Your task to perform on an android device: install app "Google Find My Device" Image 0: 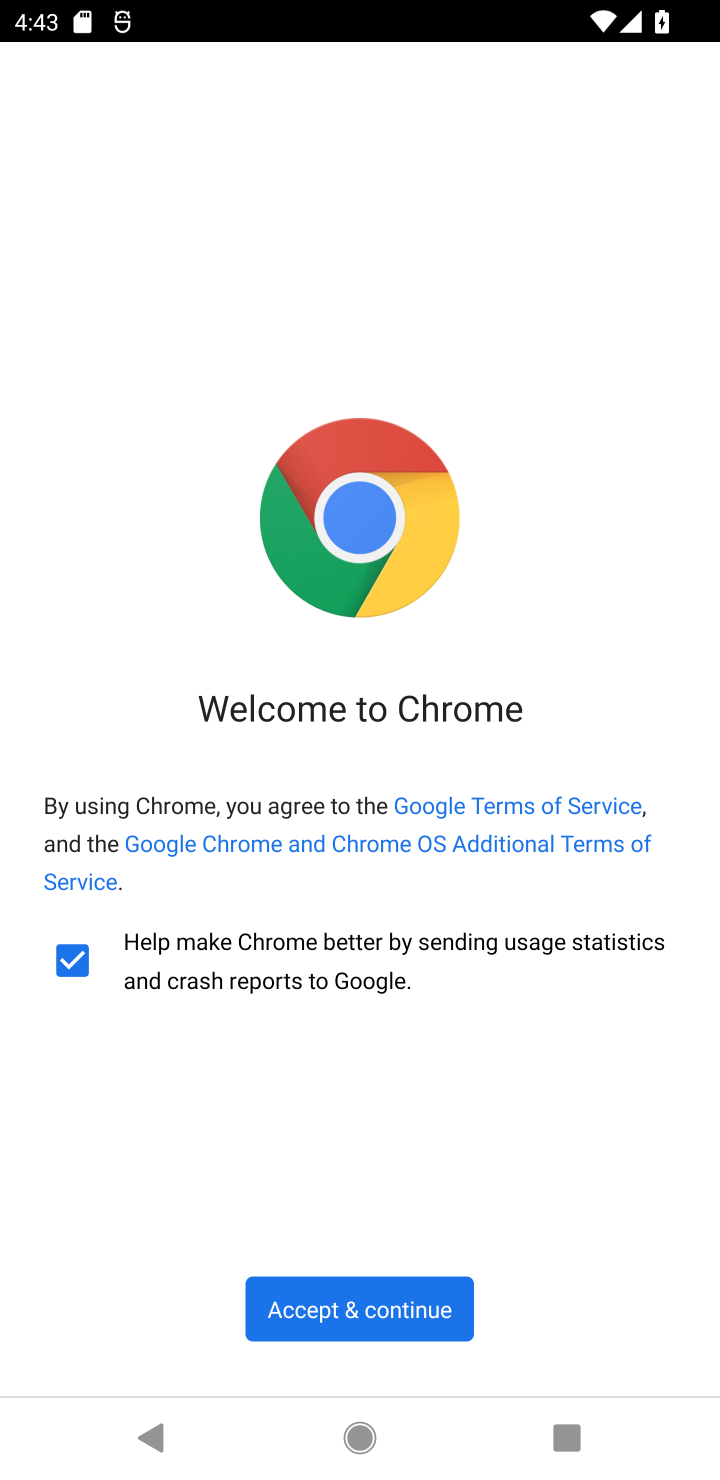
Step 0: press home button
Your task to perform on an android device: install app "Google Find My Device" Image 1: 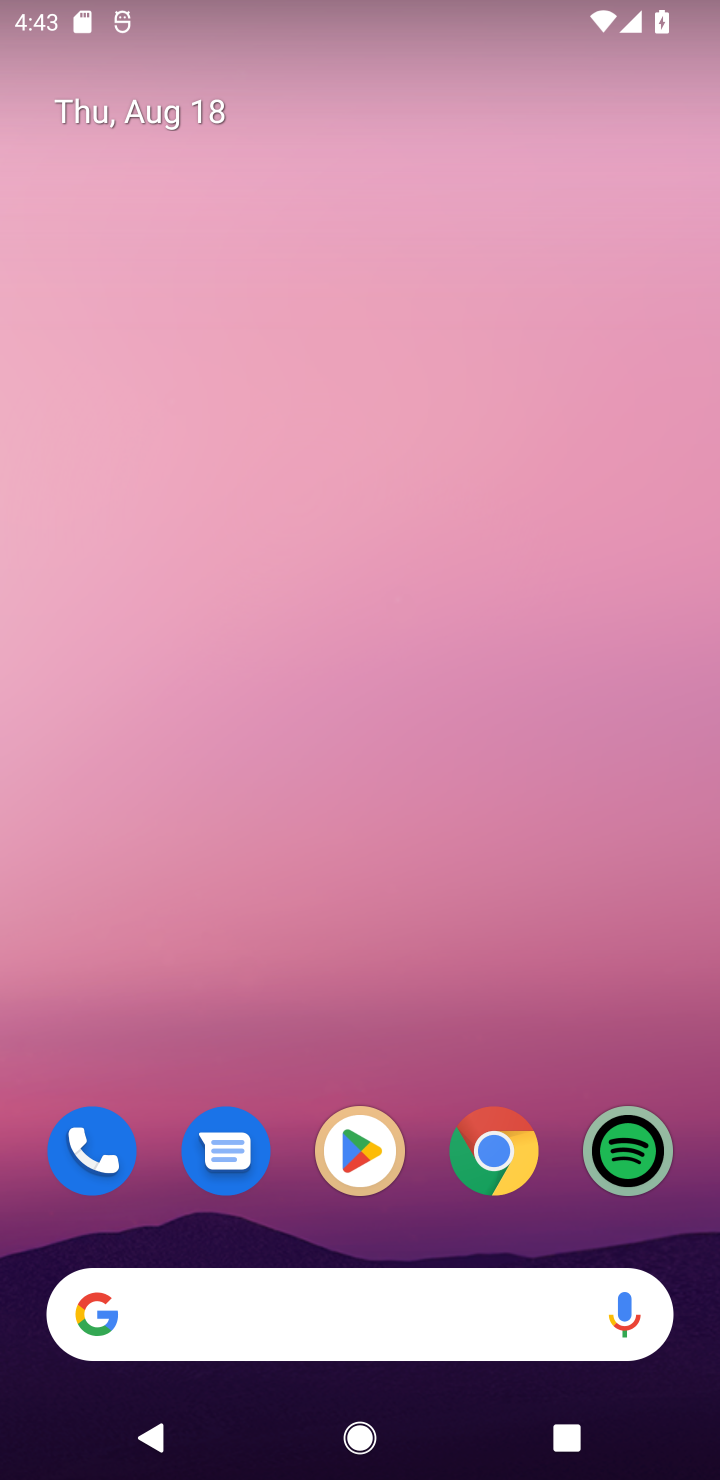
Step 1: click (361, 1152)
Your task to perform on an android device: install app "Google Find My Device" Image 2: 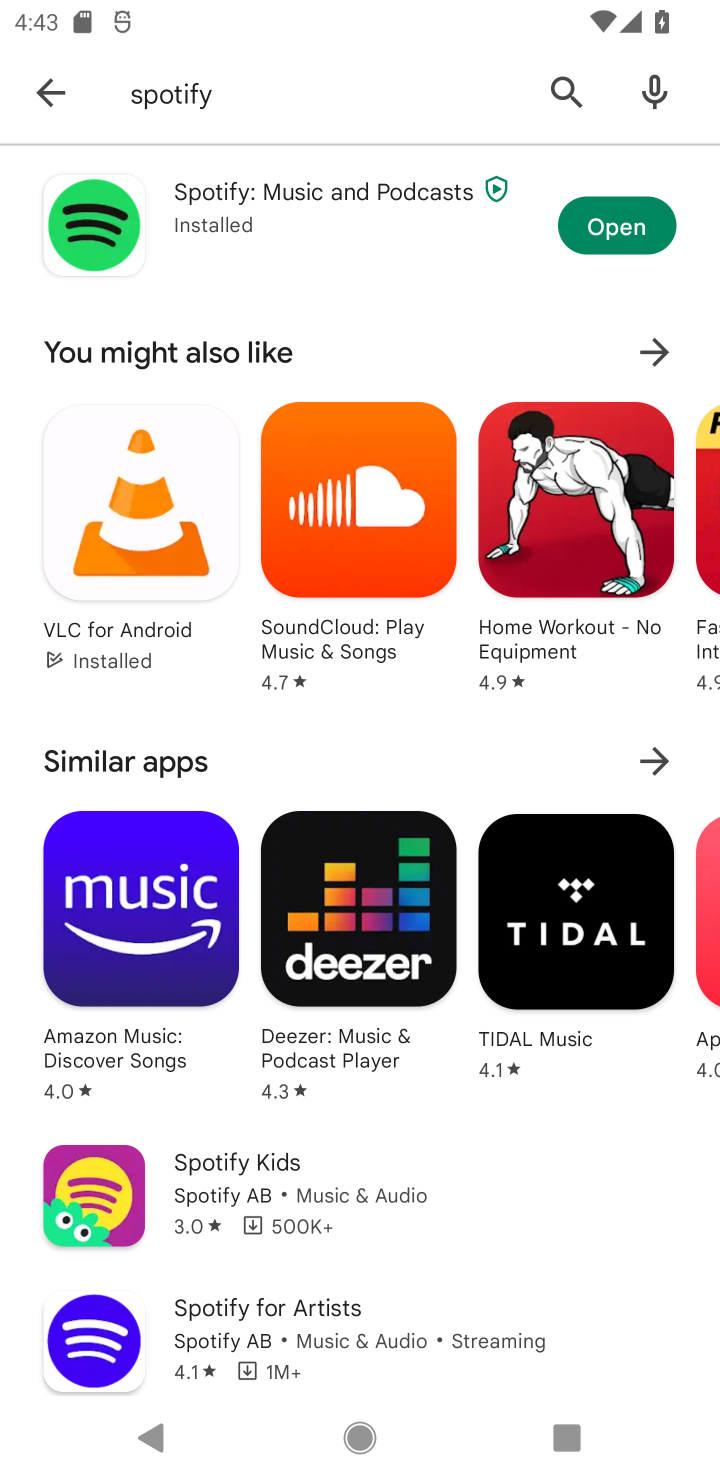
Step 2: click (577, 103)
Your task to perform on an android device: install app "Google Find My Device" Image 3: 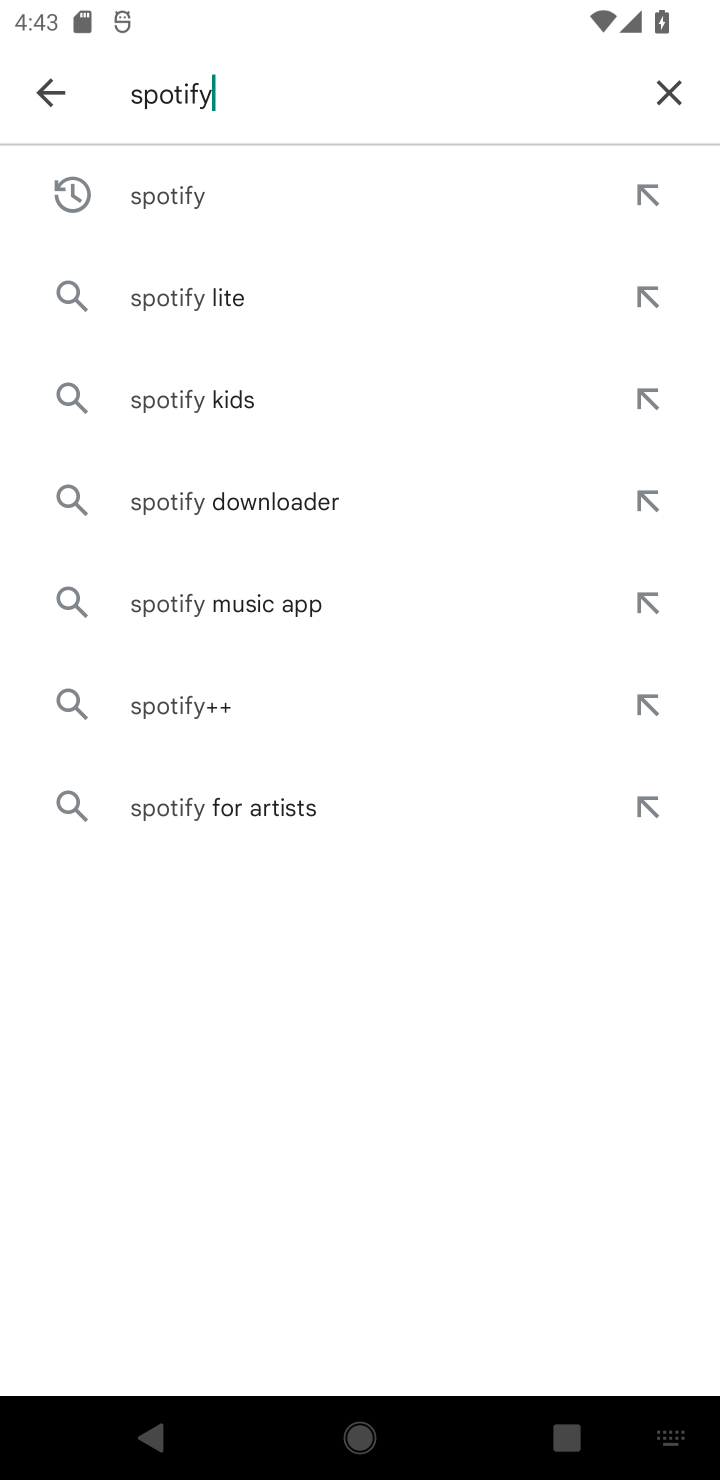
Step 3: click (657, 116)
Your task to perform on an android device: install app "Google Find My Device" Image 4: 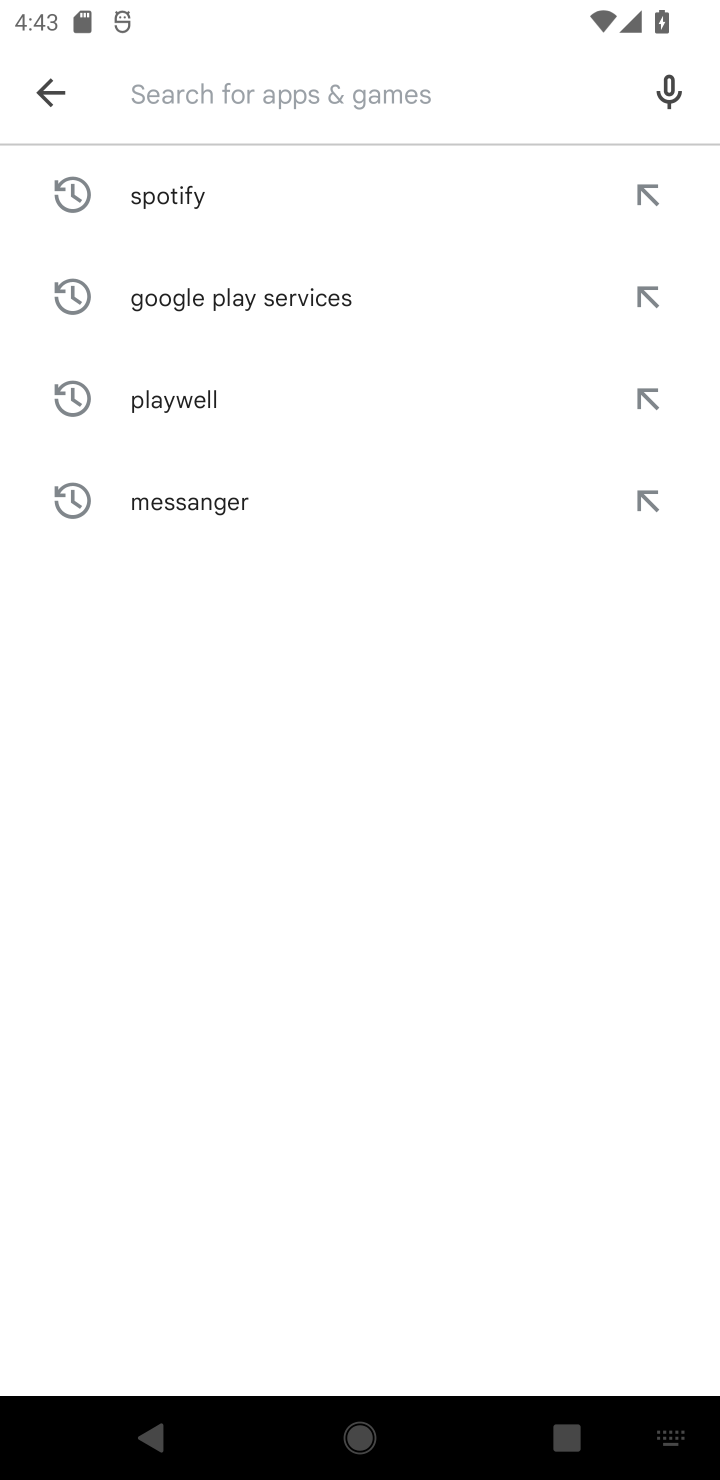
Step 4: type "google find my devies"
Your task to perform on an android device: install app "Google Find My Device" Image 5: 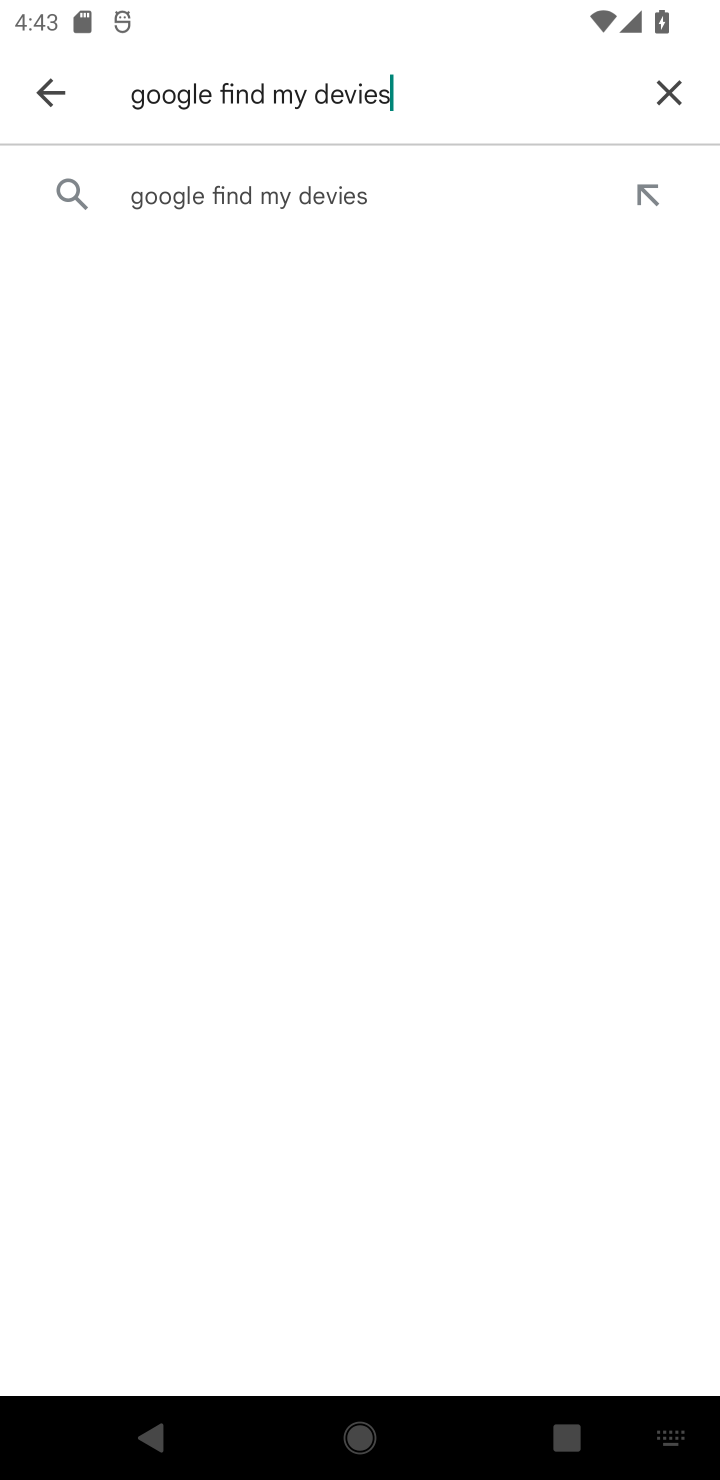
Step 5: click (145, 215)
Your task to perform on an android device: install app "Google Find My Device" Image 6: 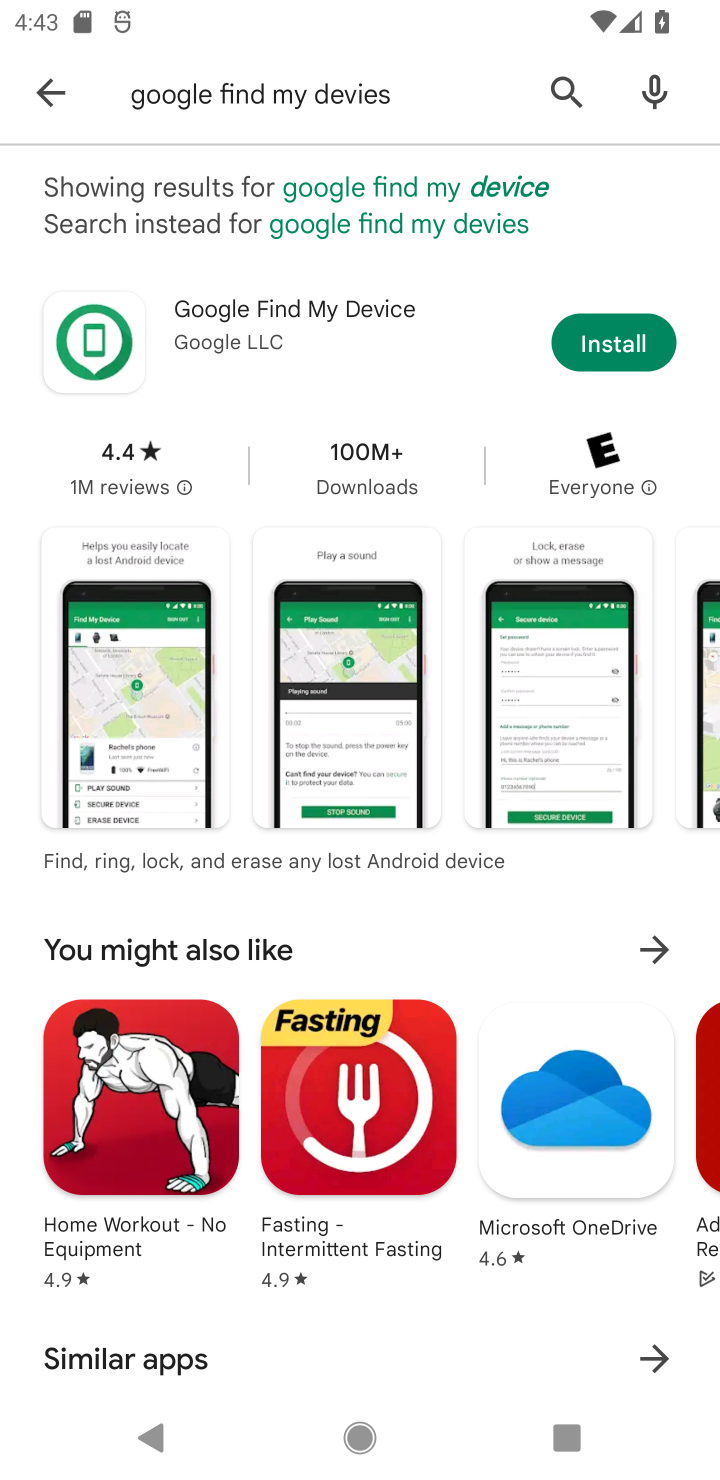
Step 6: click (563, 325)
Your task to perform on an android device: install app "Google Find My Device" Image 7: 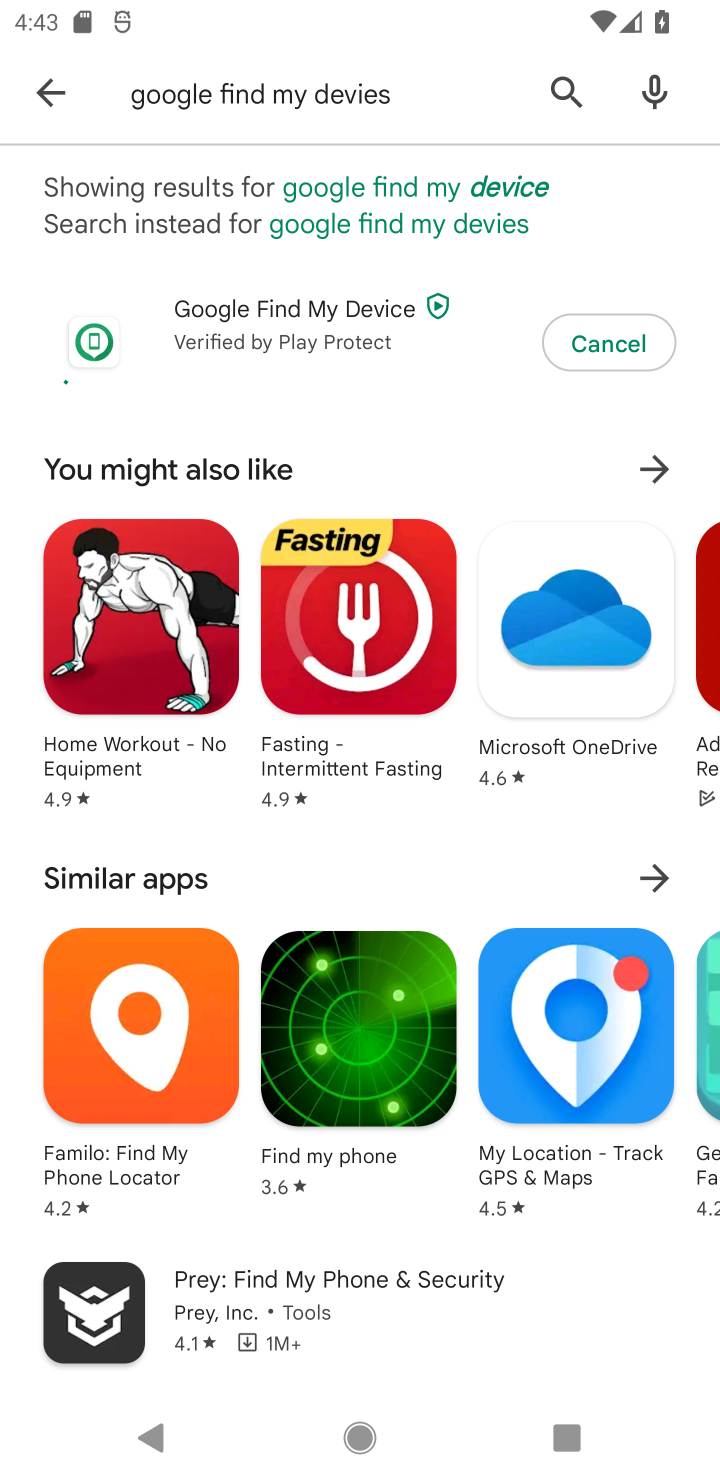
Step 7: task complete